Your task to perform on an android device: Open location settings Image 0: 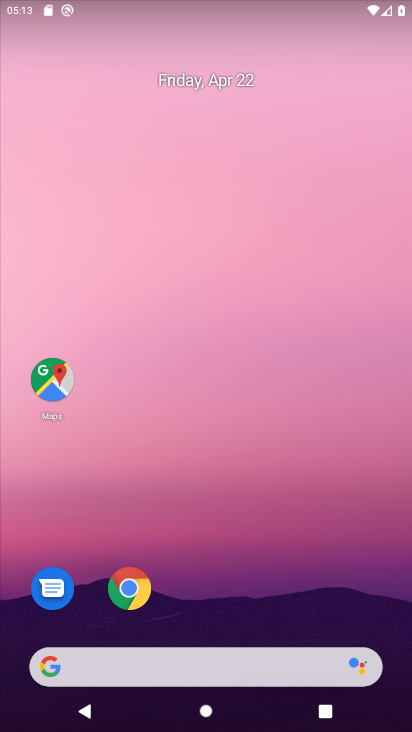
Step 0: drag from (256, 613) to (292, 98)
Your task to perform on an android device: Open location settings Image 1: 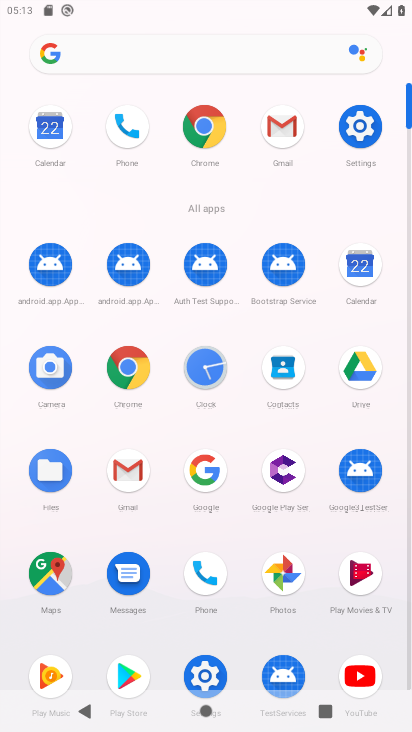
Step 1: click (365, 127)
Your task to perform on an android device: Open location settings Image 2: 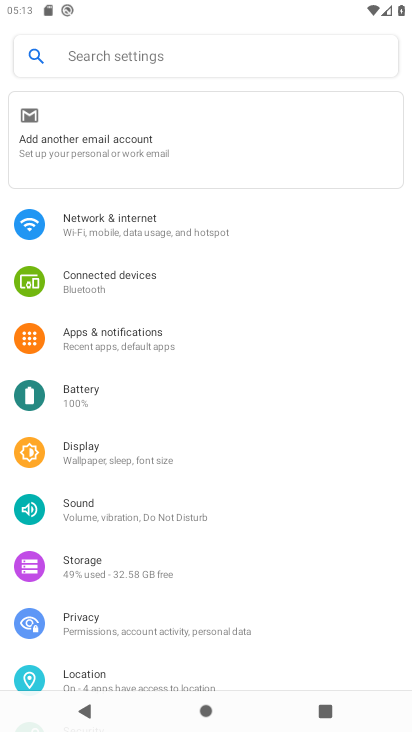
Step 2: click (115, 670)
Your task to perform on an android device: Open location settings Image 3: 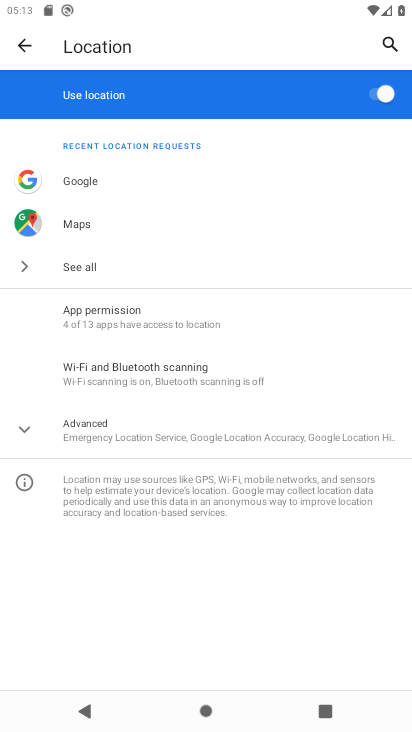
Step 3: task complete